Your task to perform on an android device: Open the stopwatch Image 0: 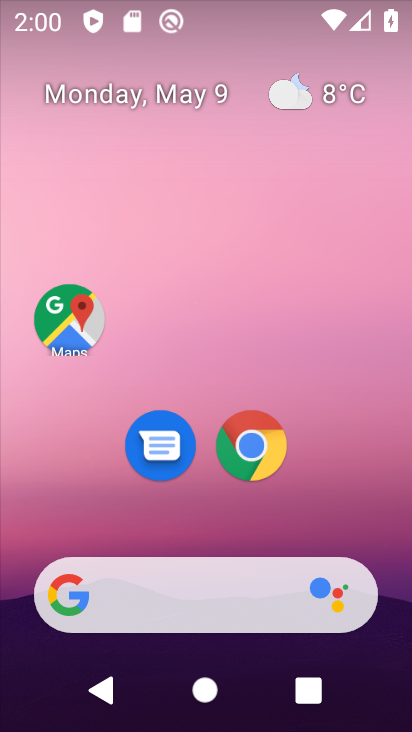
Step 0: drag from (320, 511) to (329, 64)
Your task to perform on an android device: Open the stopwatch Image 1: 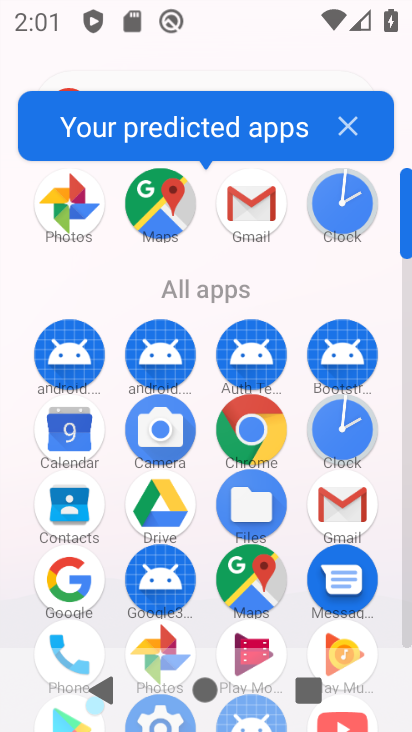
Step 1: click (327, 215)
Your task to perform on an android device: Open the stopwatch Image 2: 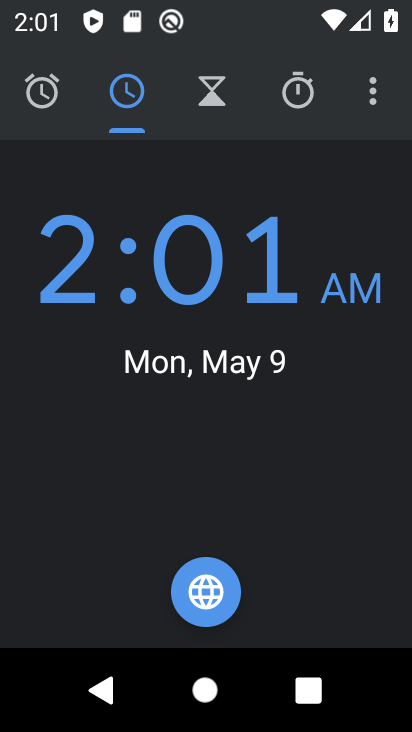
Step 2: click (307, 92)
Your task to perform on an android device: Open the stopwatch Image 3: 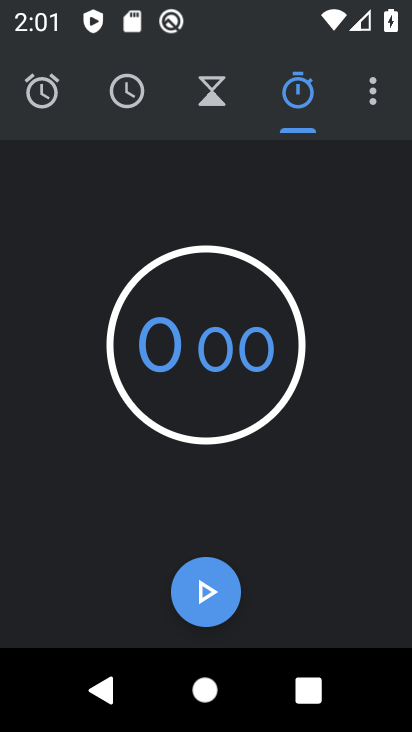
Step 3: task complete